Your task to perform on an android device: turn off translation in the chrome app Image 0: 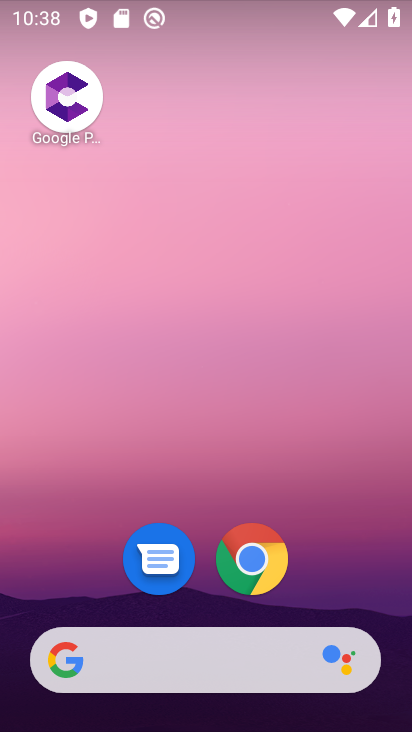
Step 0: drag from (317, 621) to (224, 8)
Your task to perform on an android device: turn off translation in the chrome app Image 1: 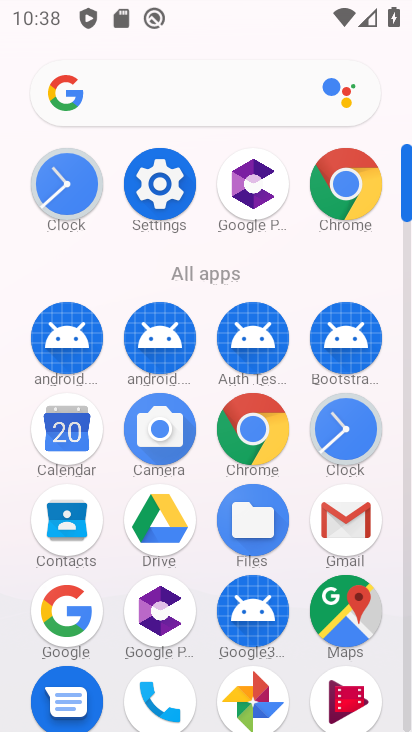
Step 1: click (255, 422)
Your task to perform on an android device: turn off translation in the chrome app Image 2: 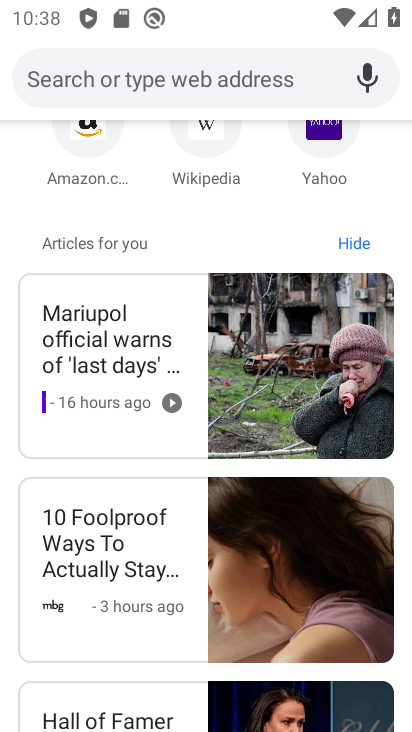
Step 2: press back button
Your task to perform on an android device: turn off translation in the chrome app Image 3: 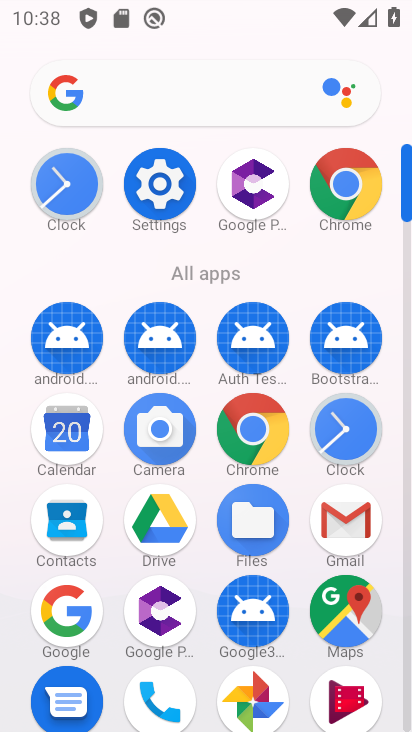
Step 3: click (254, 451)
Your task to perform on an android device: turn off translation in the chrome app Image 4: 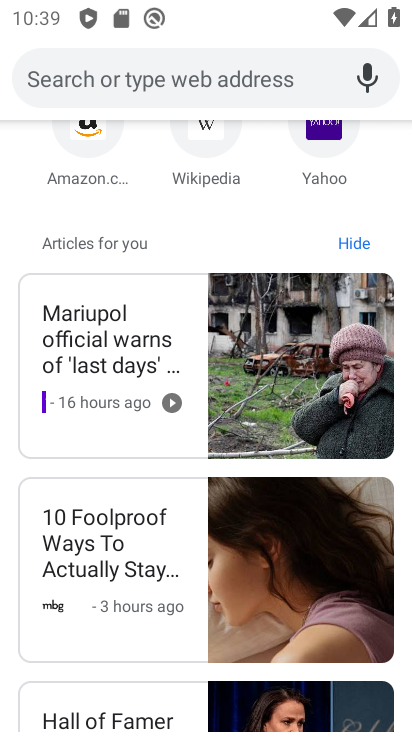
Step 4: drag from (281, 162) to (244, 727)
Your task to perform on an android device: turn off translation in the chrome app Image 5: 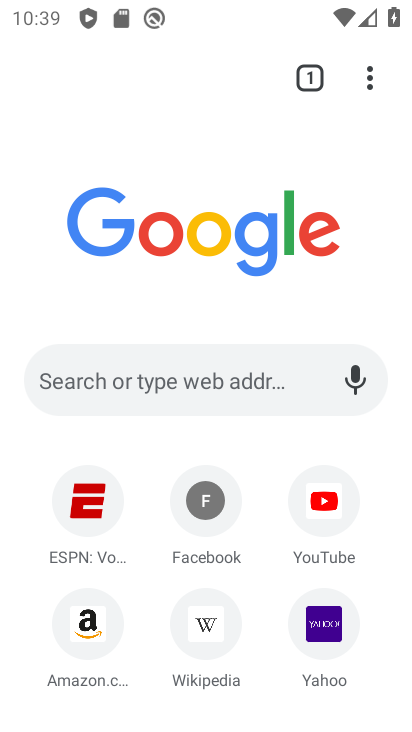
Step 5: click (360, 68)
Your task to perform on an android device: turn off translation in the chrome app Image 6: 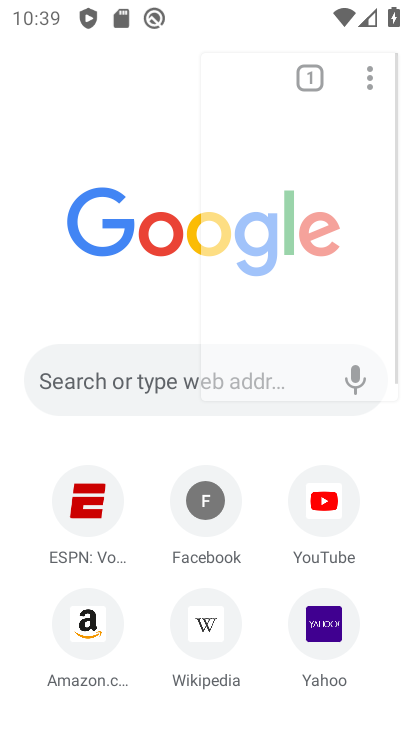
Step 6: drag from (360, 68) to (211, 672)
Your task to perform on an android device: turn off translation in the chrome app Image 7: 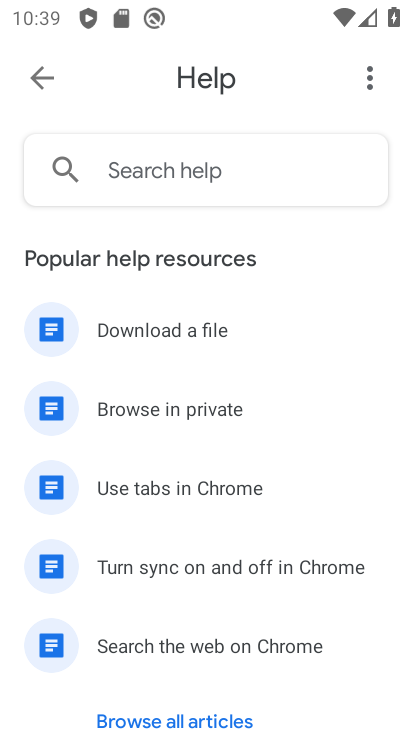
Step 7: press back button
Your task to perform on an android device: turn off translation in the chrome app Image 8: 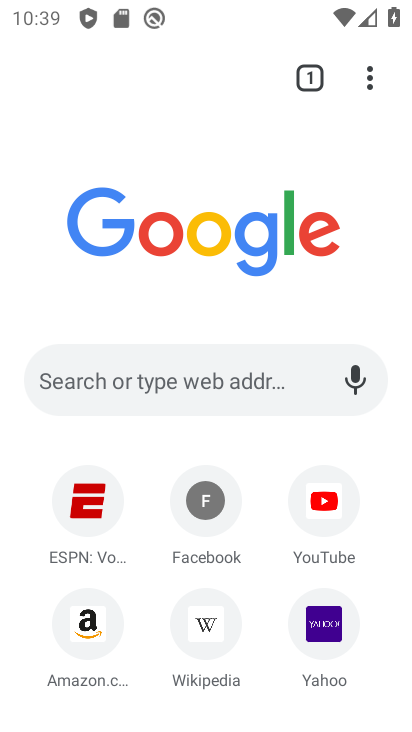
Step 8: drag from (364, 73) to (134, 634)
Your task to perform on an android device: turn off translation in the chrome app Image 9: 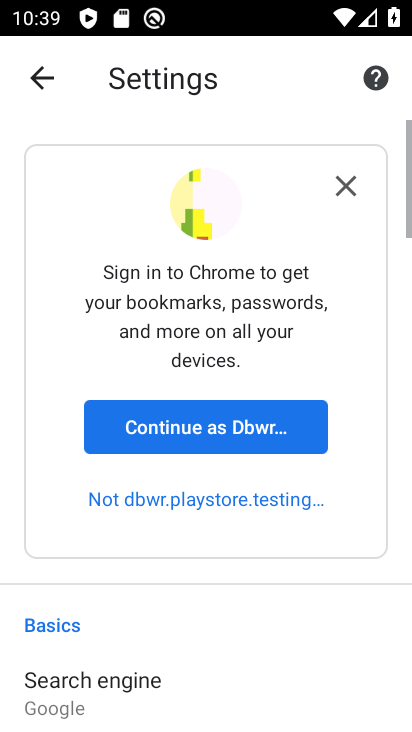
Step 9: drag from (285, 663) to (274, 16)
Your task to perform on an android device: turn off translation in the chrome app Image 10: 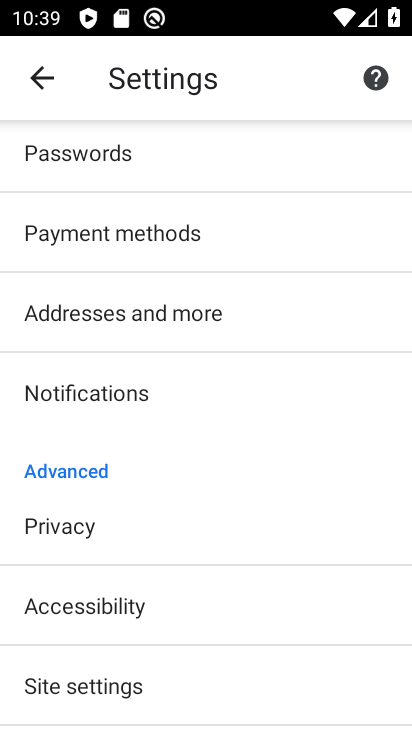
Step 10: drag from (175, 684) to (203, 299)
Your task to perform on an android device: turn off translation in the chrome app Image 11: 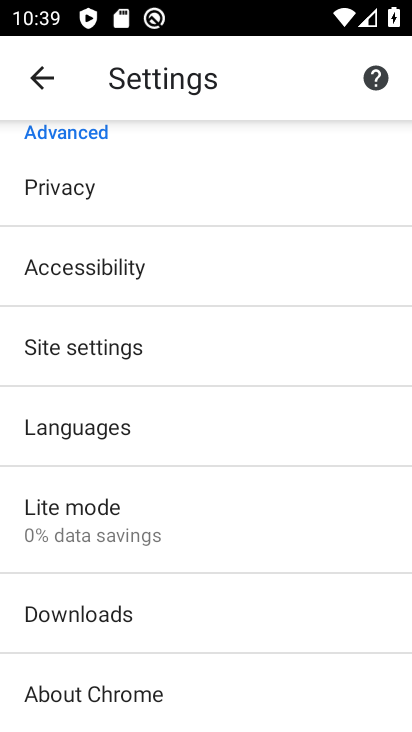
Step 11: click (154, 424)
Your task to perform on an android device: turn off translation in the chrome app Image 12: 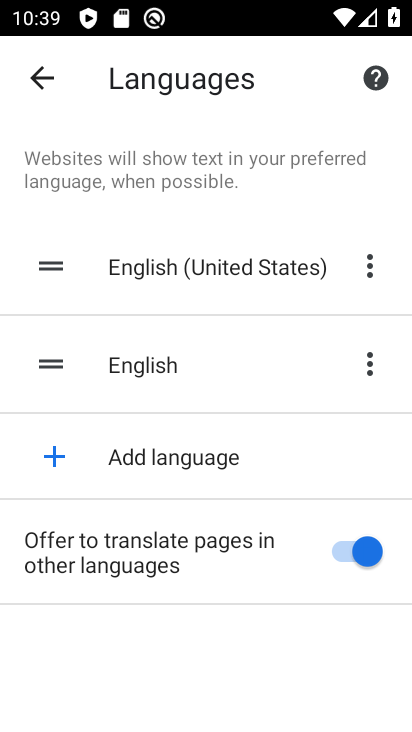
Step 12: click (355, 556)
Your task to perform on an android device: turn off translation in the chrome app Image 13: 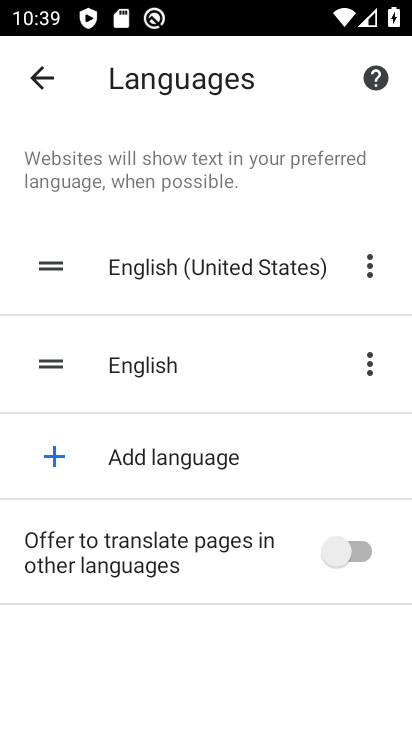
Step 13: task complete